Your task to perform on an android device: remove spam from my inbox in the gmail app Image 0: 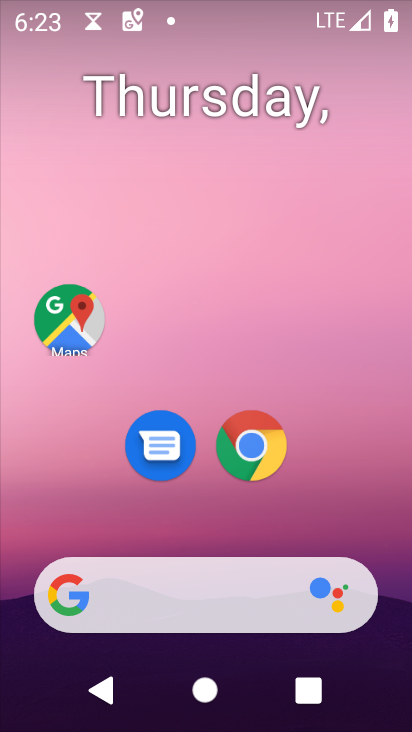
Step 0: drag from (349, 492) to (366, 115)
Your task to perform on an android device: remove spam from my inbox in the gmail app Image 1: 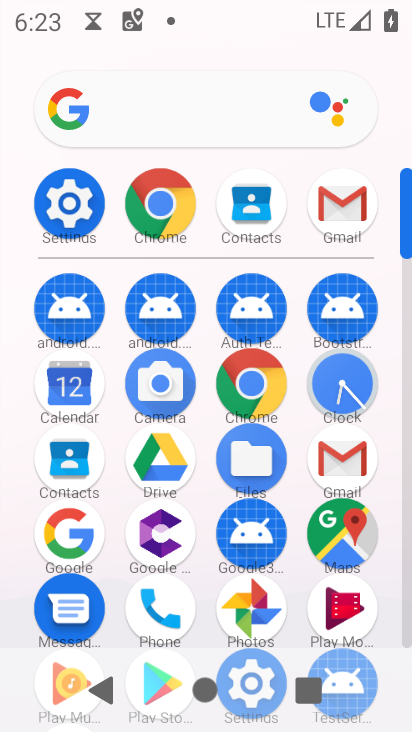
Step 1: click (66, 199)
Your task to perform on an android device: remove spam from my inbox in the gmail app Image 2: 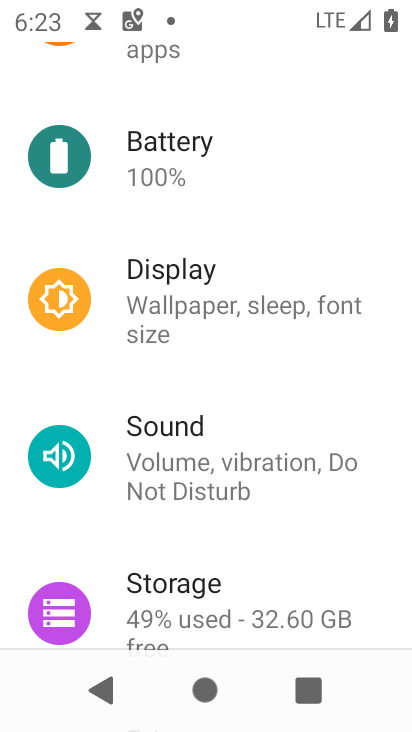
Step 2: press home button
Your task to perform on an android device: remove spam from my inbox in the gmail app Image 3: 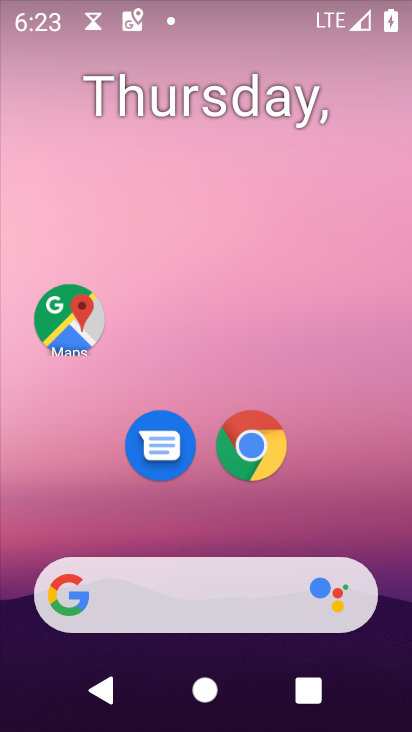
Step 3: drag from (299, 478) to (354, 162)
Your task to perform on an android device: remove spam from my inbox in the gmail app Image 4: 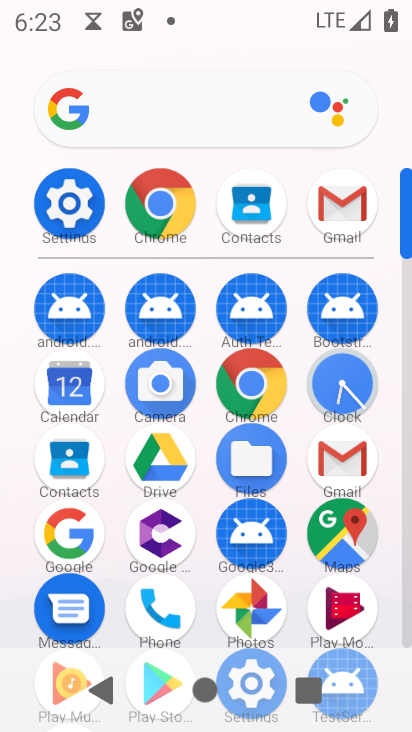
Step 4: click (348, 207)
Your task to perform on an android device: remove spam from my inbox in the gmail app Image 5: 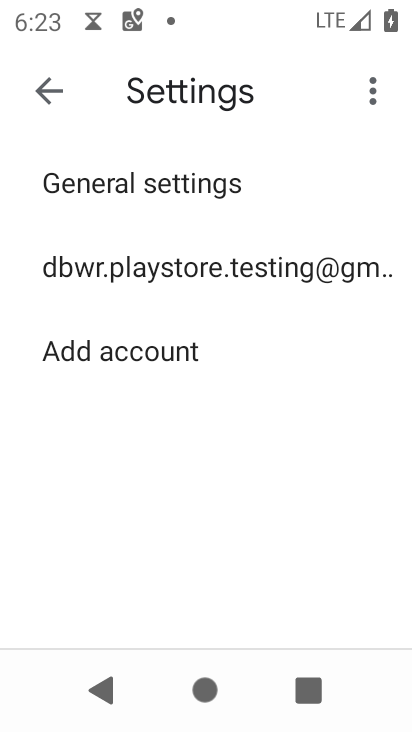
Step 5: click (310, 263)
Your task to perform on an android device: remove spam from my inbox in the gmail app Image 6: 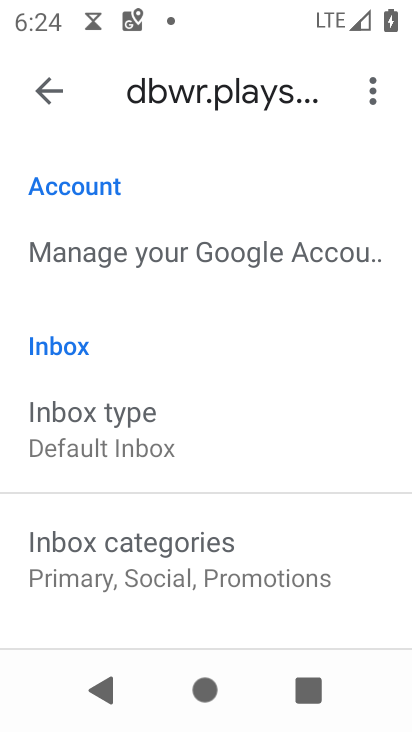
Step 6: click (45, 96)
Your task to perform on an android device: remove spam from my inbox in the gmail app Image 7: 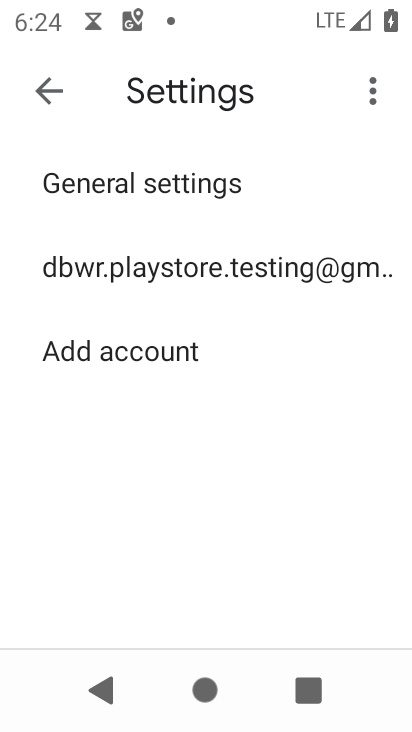
Step 7: click (30, 89)
Your task to perform on an android device: remove spam from my inbox in the gmail app Image 8: 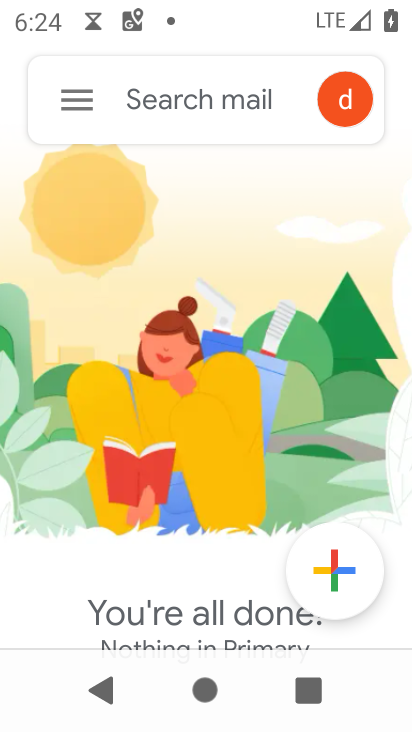
Step 8: click (72, 104)
Your task to perform on an android device: remove spam from my inbox in the gmail app Image 9: 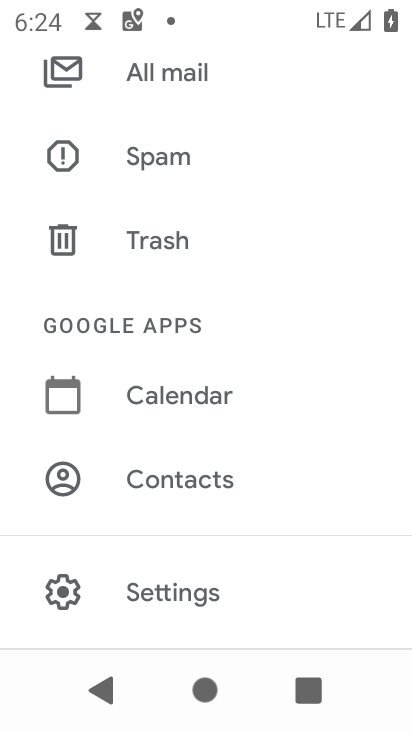
Step 9: click (153, 152)
Your task to perform on an android device: remove spam from my inbox in the gmail app Image 10: 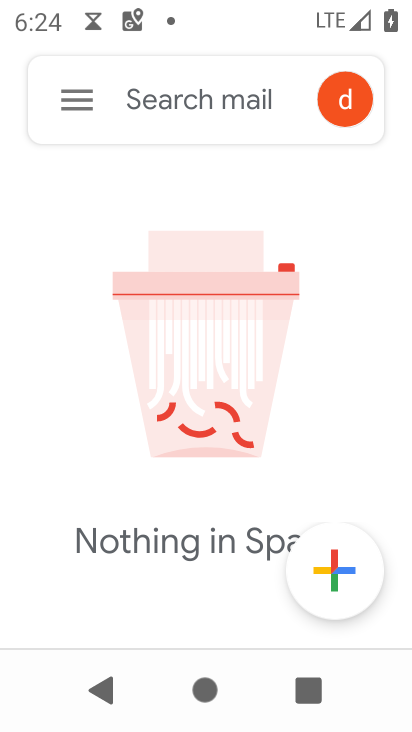
Step 10: task complete